Your task to perform on an android device: Search for lg ultragear on costco, select the first entry, add it to the cart, then select checkout. Image 0: 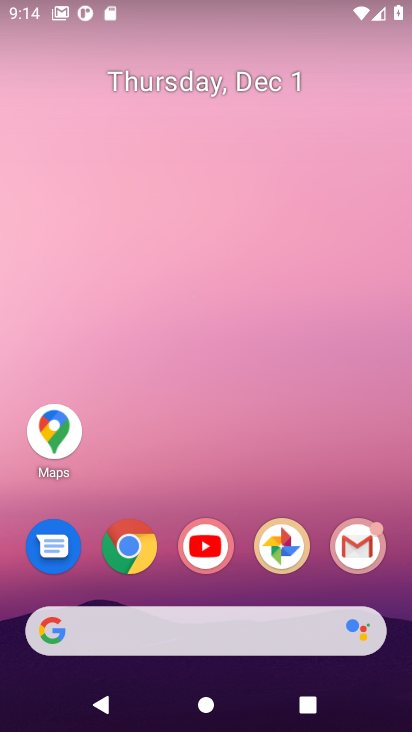
Step 0: click (124, 544)
Your task to perform on an android device: Search for lg ultragear on costco, select the first entry, add it to the cart, then select checkout. Image 1: 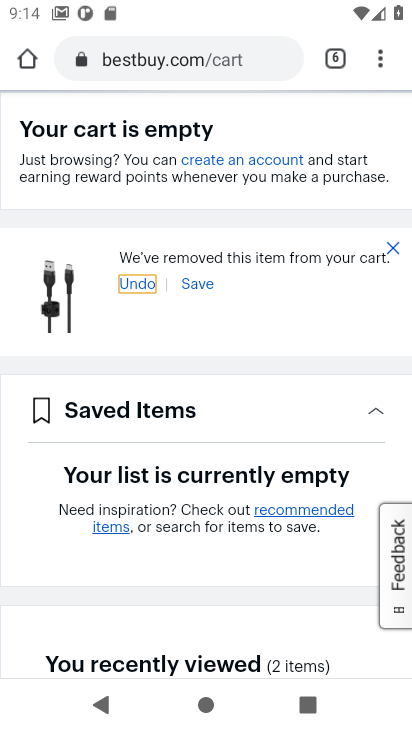
Step 1: click (185, 63)
Your task to perform on an android device: Search for lg ultragear on costco, select the first entry, add it to the cart, then select checkout. Image 2: 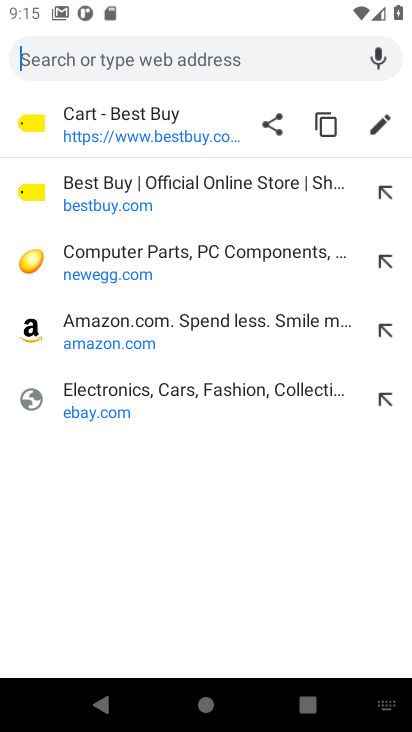
Step 2: type "costco.com"
Your task to perform on an android device: Search for lg ultragear on costco, select the first entry, add it to the cart, then select checkout. Image 3: 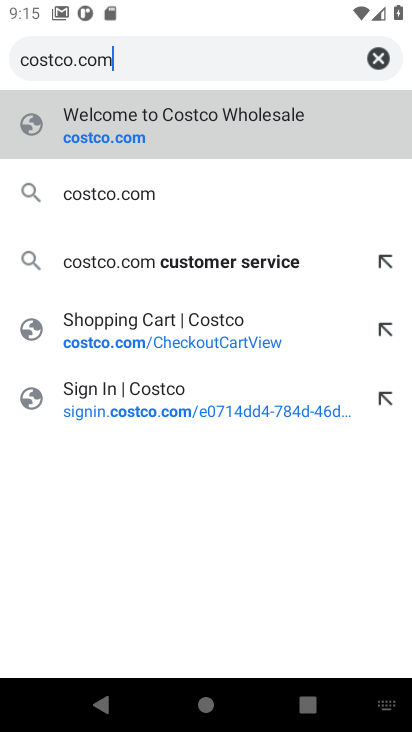
Step 3: click (98, 132)
Your task to perform on an android device: Search for lg ultragear on costco, select the first entry, add it to the cart, then select checkout. Image 4: 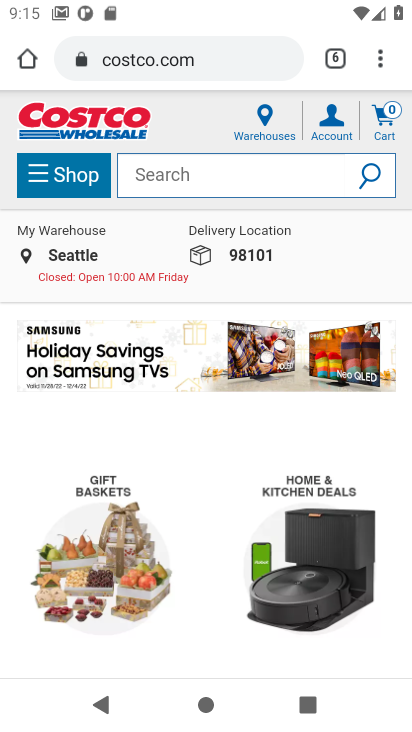
Step 4: click (155, 190)
Your task to perform on an android device: Search for lg ultragear on costco, select the first entry, add it to the cart, then select checkout. Image 5: 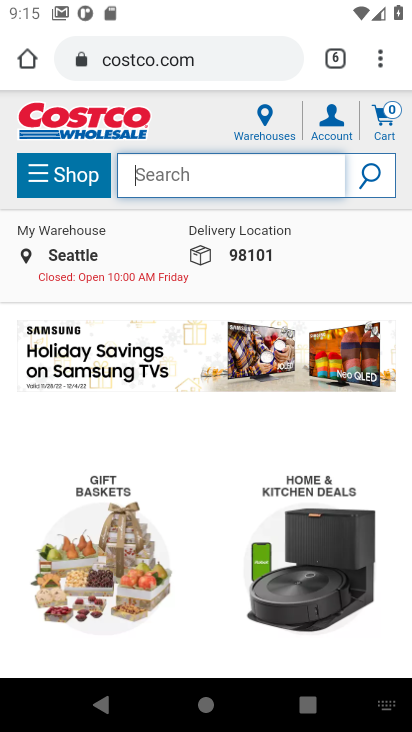
Step 5: type "lg ultragear "
Your task to perform on an android device: Search for lg ultragear on costco, select the first entry, add it to the cart, then select checkout. Image 6: 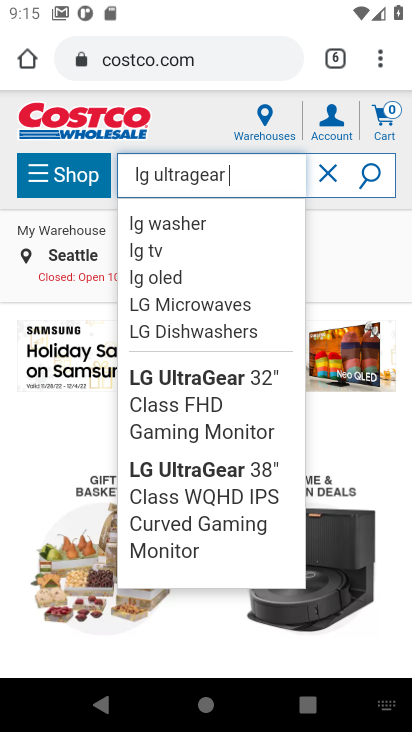
Step 6: click (363, 180)
Your task to perform on an android device: Search for lg ultragear on costco, select the first entry, add it to the cart, then select checkout. Image 7: 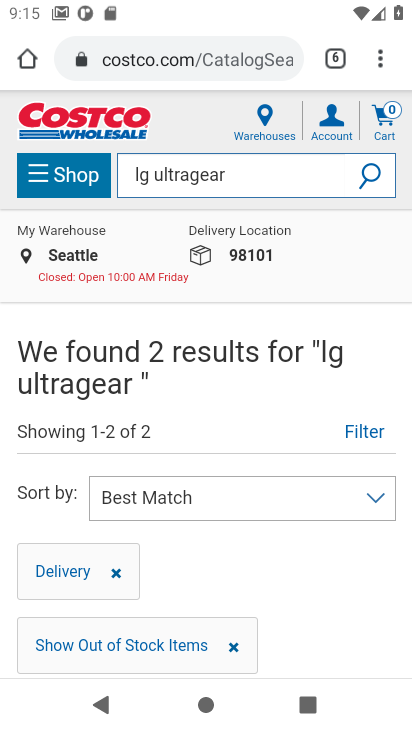
Step 7: drag from (211, 445) to (221, 245)
Your task to perform on an android device: Search for lg ultragear on costco, select the first entry, add it to the cart, then select checkout. Image 8: 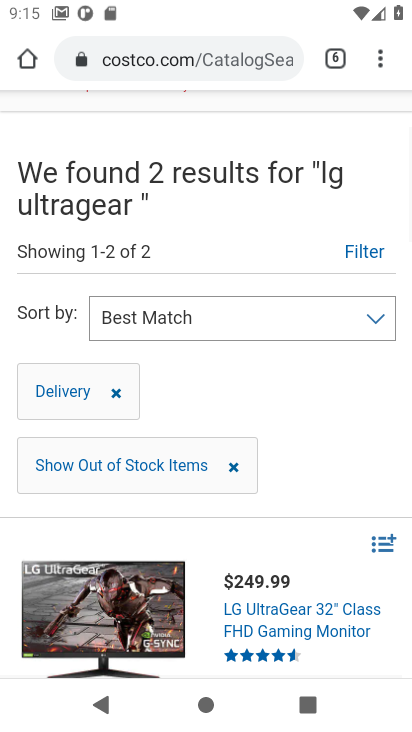
Step 8: drag from (215, 460) to (217, 221)
Your task to perform on an android device: Search for lg ultragear on costco, select the first entry, add it to the cart, then select checkout. Image 9: 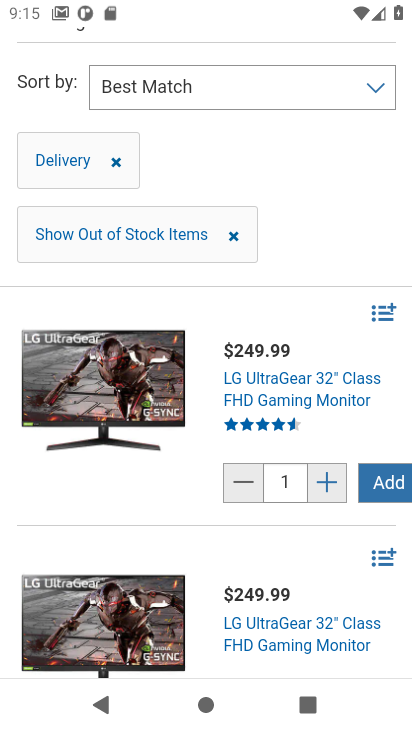
Step 9: click (388, 488)
Your task to perform on an android device: Search for lg ultragear on costco, select the first entry, add it to the cart, then select checkout. Image 10: 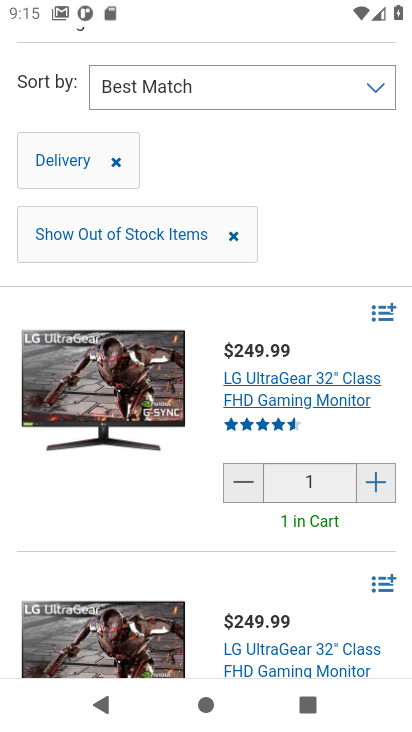
Step 10: drag from (291, 251) to (228, 561)
Your task to perform on an android device: Search for lg ultragear on costco, select the first entry, add it to the cart, then select checkout. Image 11: 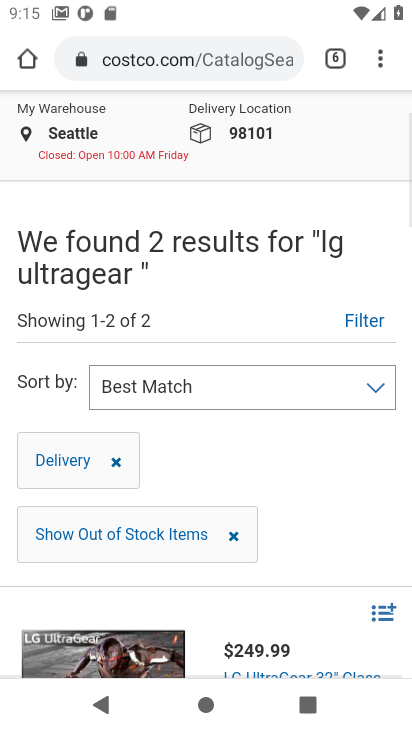
Step 11: drag from (355, 194) to (326, 408)
Your task to perform on an android device: Search for lg ultragear on costco, select the first entry, add it to the cart, then select checkout. Image 12: 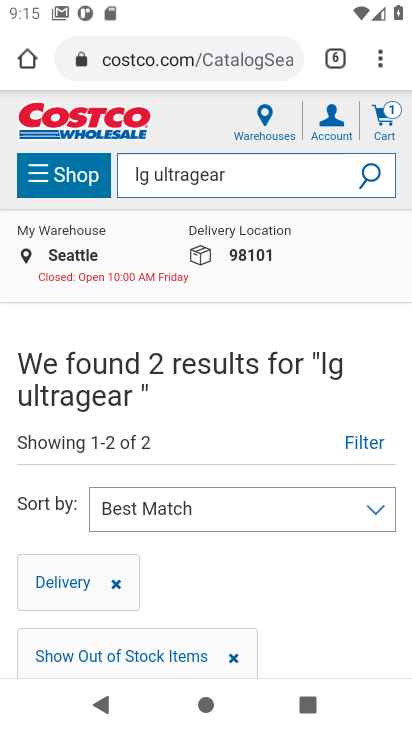
Step 12: click (385, 125)
Your task to perform on an android device: Search for lg ultragear on costco, select the first entry, add it to the cart, then select checkout. Image 13: 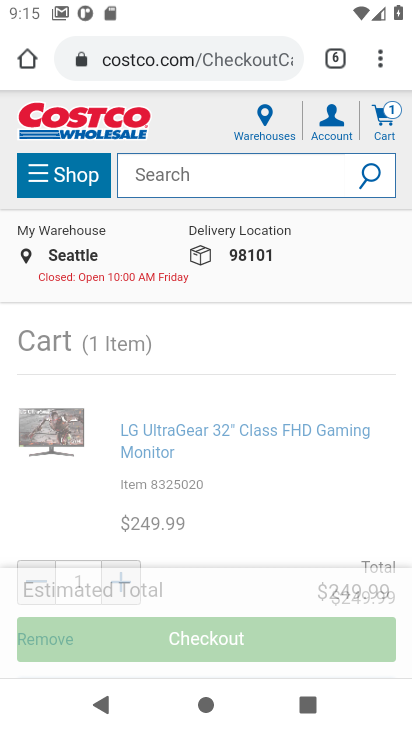
Step 13: click (178, 639)
Your task to perform on an android device: Search for lg ultragear on costco, select the first entry, add it to the cart, then select checkout. Image 14: 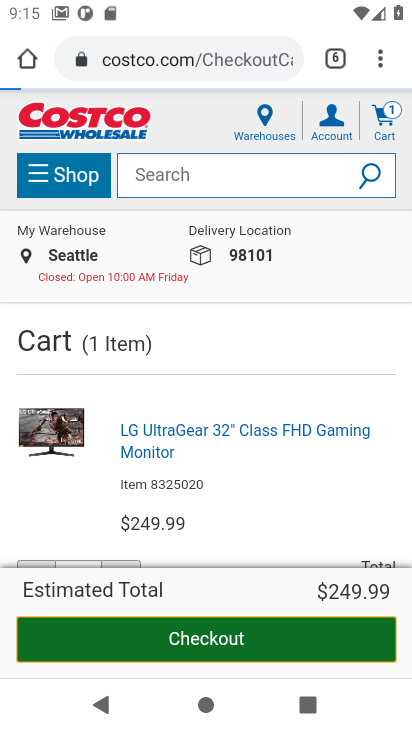
Step 14: click (178, 639)
Your task to perform on an android device: Search for lg ultragear on costco, select the first entry, add it to the cart, then select checkout. Image 15: 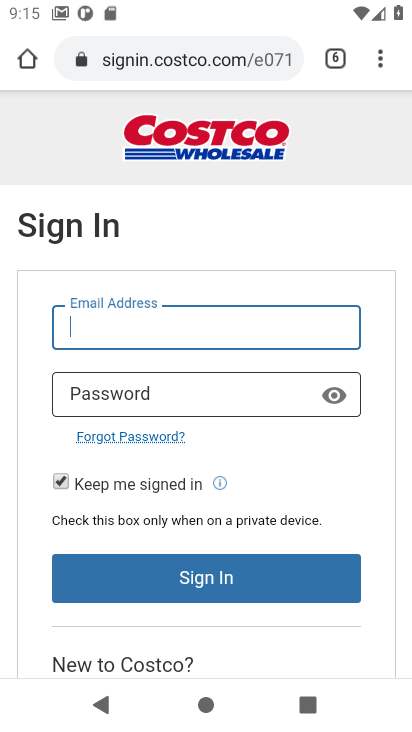
Step 15: task complete